Your task to perform on an android device: Toggle the flashlight Image 0: 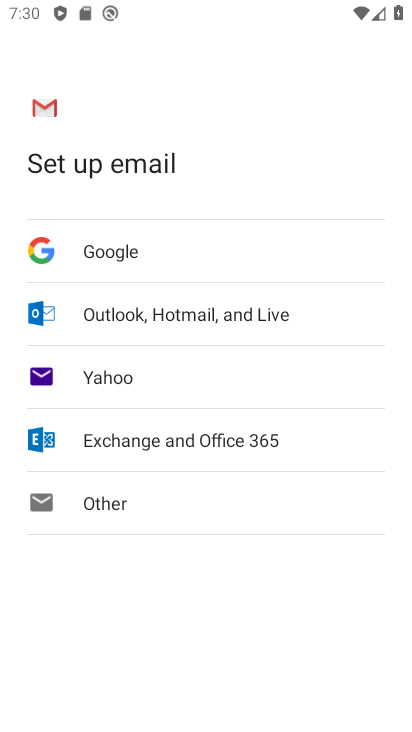
Step 0: press home button
Your task to perform on an android device: Toggle the flashlight Image 1: 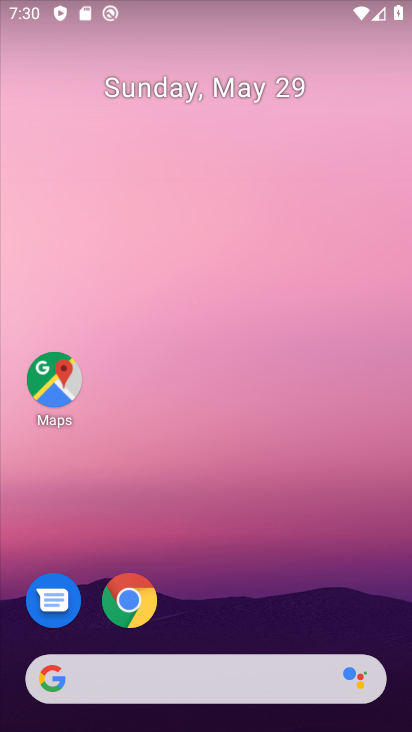
Step 1: drag from (211, 594) to (223, 5)
Your task to perform on an android device: Toggle the flashlight Image 2: 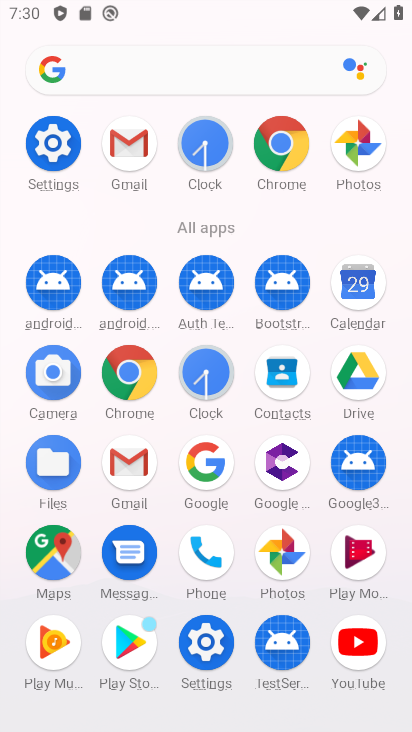
Step 2: click (53, 166)
Your task to perform on an android device: Toggle the flashlight Image 3: 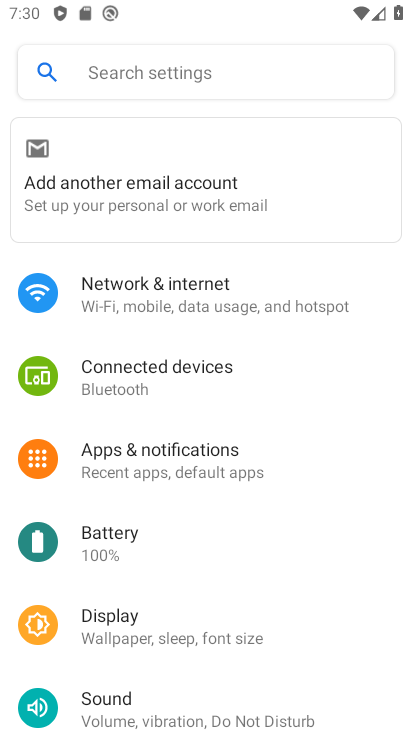
Step 3: click (154, 71)
Your task to perform on an android device: Toggle the flashlight Image 4: 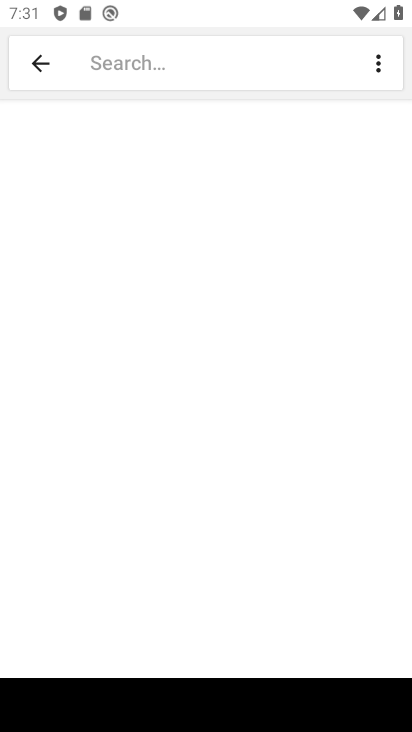
Step 4: type "flashlight"
Your task to perform on an android device: Toggle the flashlight Image 5: 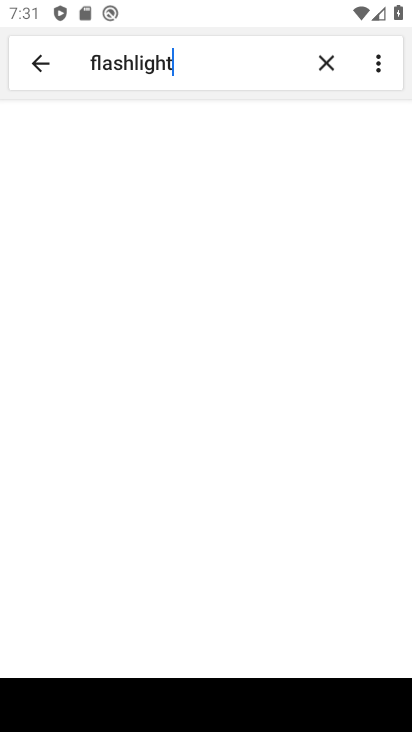
Step 5: click (87, 133)
Your task to perform on an android device: Toggle the flashlight Image 6: 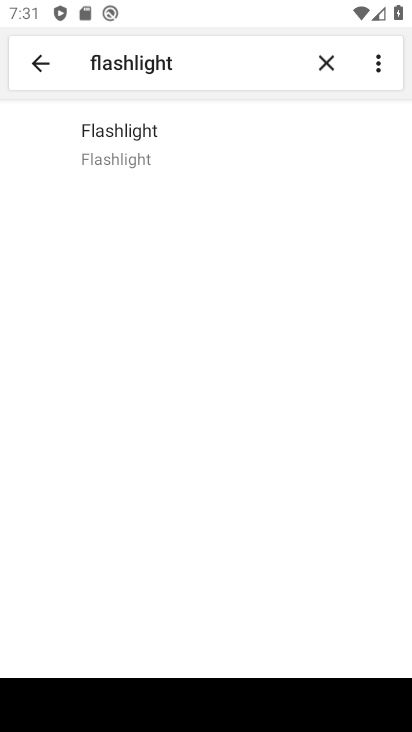
Step 6: click (108, 147)
Your task to perform on an android device: Toggle the flashlight Image 7: 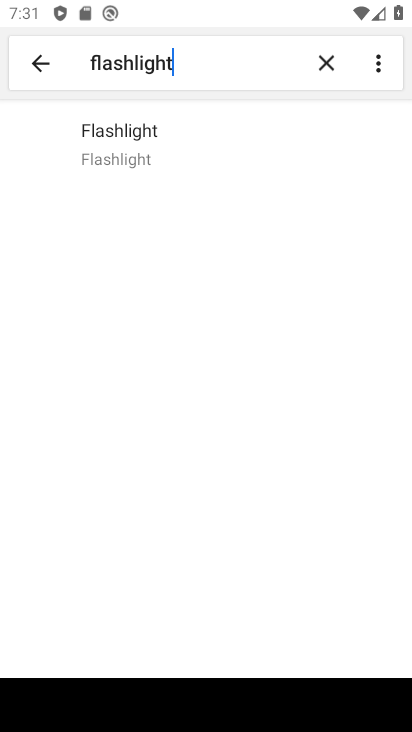
Step 7: click (108, 148)
Your task to perform on an android device: Toggle the flashlight Image 8: 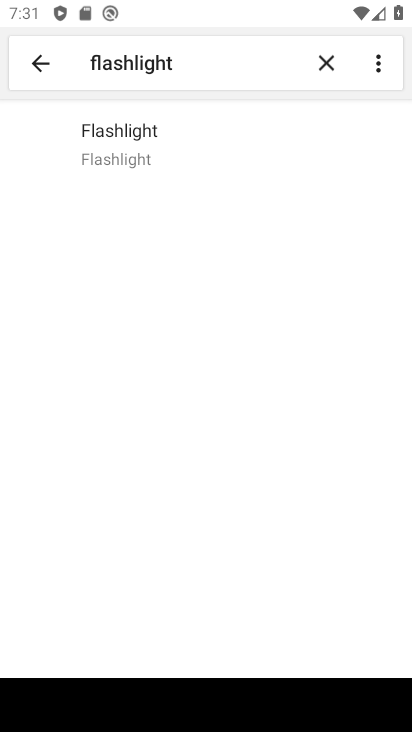
Step 8: task complete